Your task to perform on an android device: toggle data saver in the chrome app Image 0: 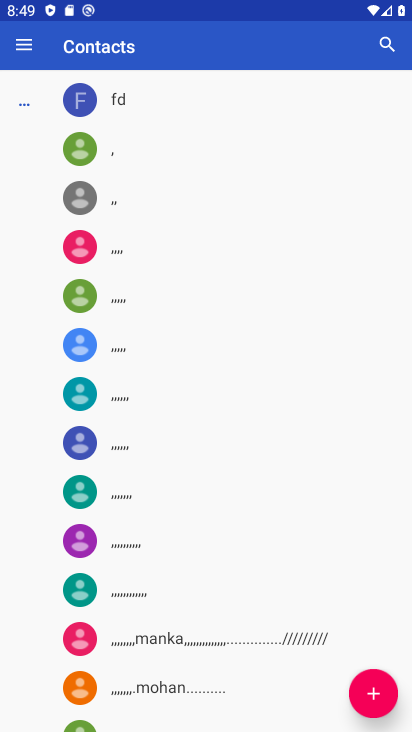
Step 0: press back button
Your task to perform on an android device: toggle data saver in the chrome app Image 1: 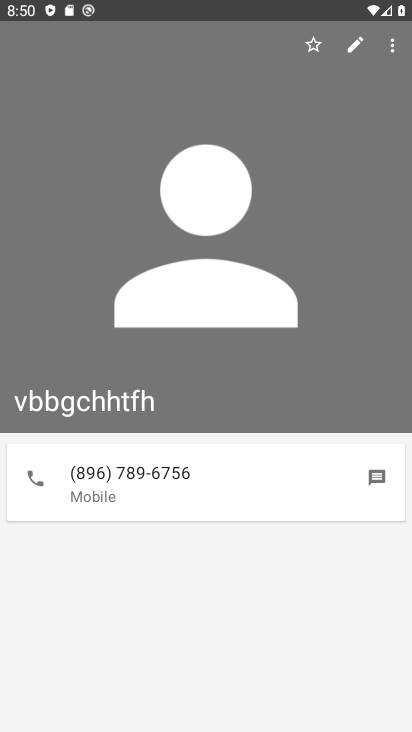
Step 1: press back button
Your task to perform on an android device: toggle data saver in the chrome app Image 2: 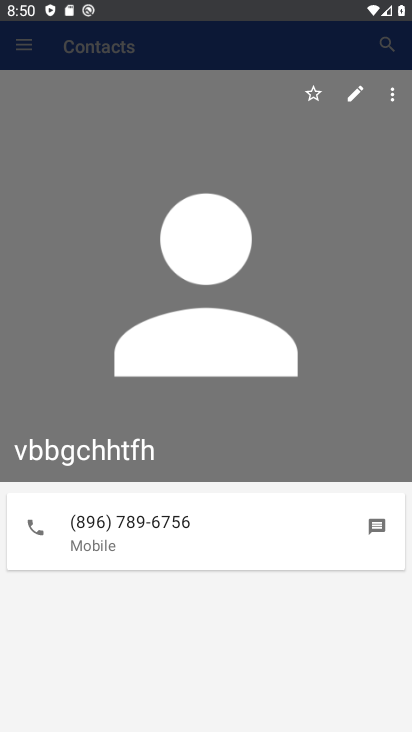
Step 2: press back button
Your task to perform on an android device: toggle data saver in the chrome app Image 3: 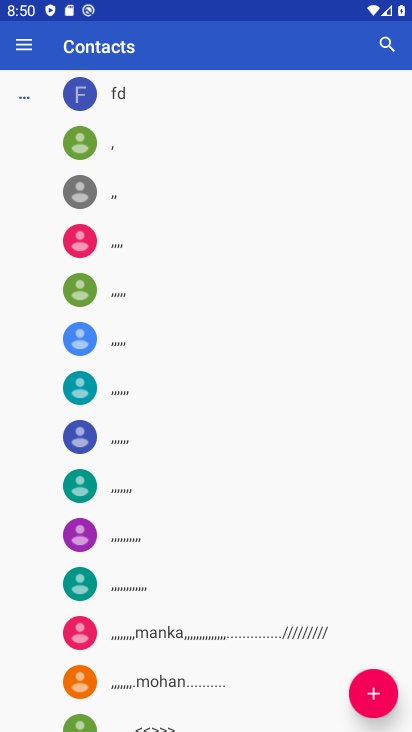
Step 3: press back button
Your task to perform on an android device: toggle data saver in the chrome app Image 4: 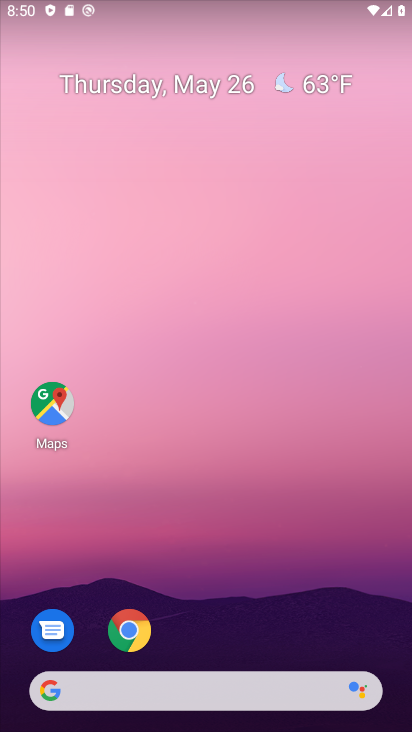
Step 4: click (121, 30)
Your task to perform on an android device: toggle data saver in the chrome app Image 5: 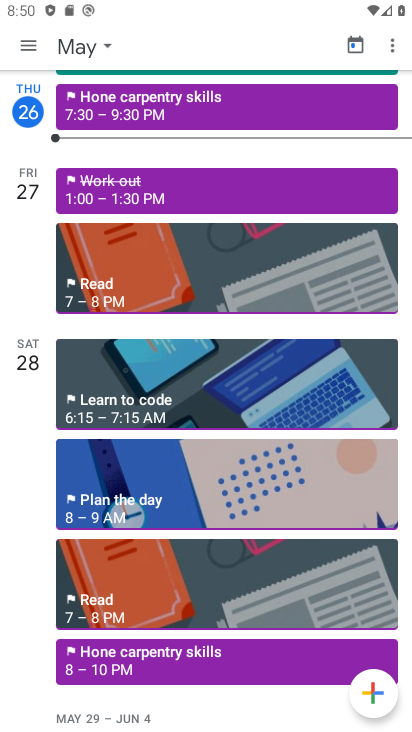
Step 5: press home button
Your task to perform on an android device: toggle data saver in the chrome app Image 6: 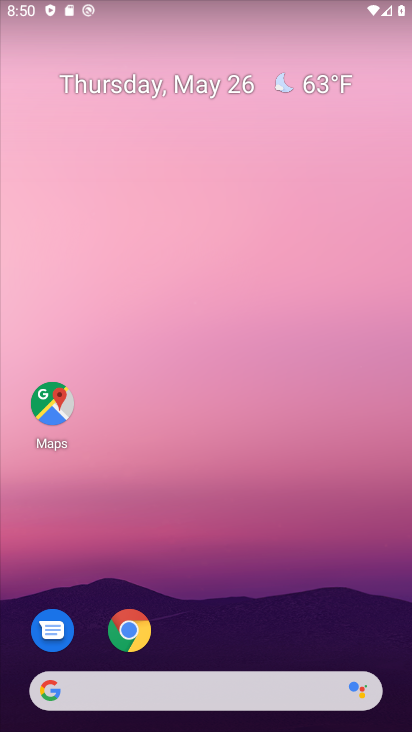
Step 6: drag from (259, 575) to (147, 115)
Your task to perform on an android device: toggle data saver in the chrome app Image 7: 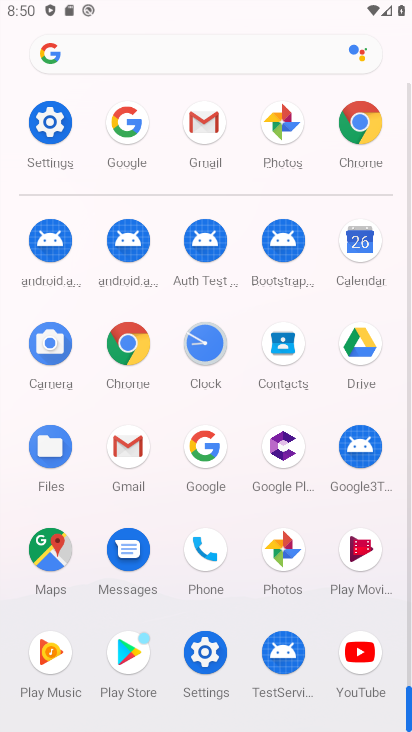
Step 7: click (358, 128)
Your task to perform on an android device: toggle data saver in the chrome app Image 8: 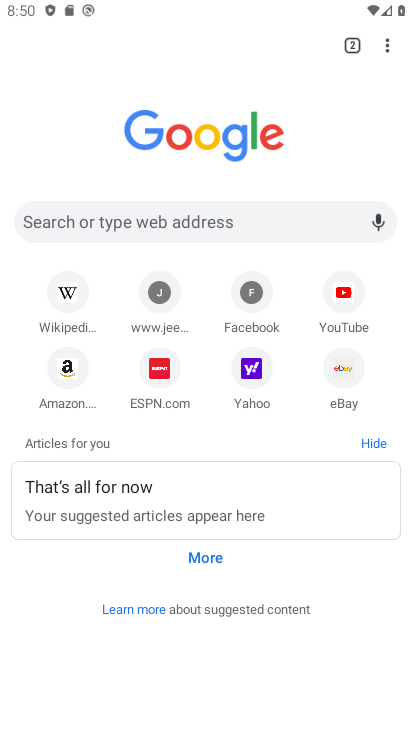
Step 8: drag from (391, 43) to (229, 383)
Your task to perform on an android device: toggle data saver in the chrome app Image 9: 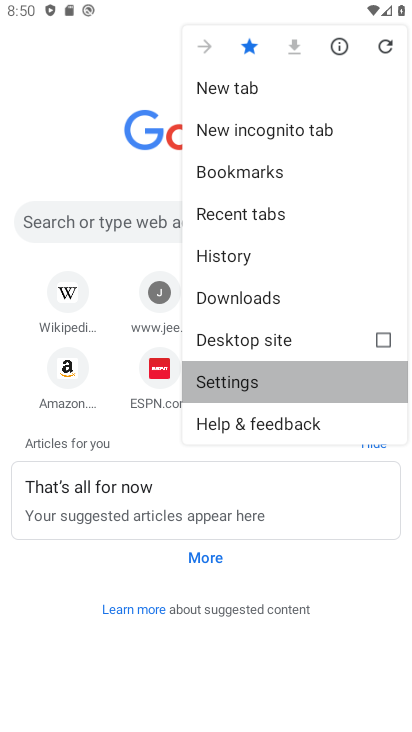
Step 9: click (228, 383)
Your task to perform on an android device: toggle data saver in the chrome app Image 10: 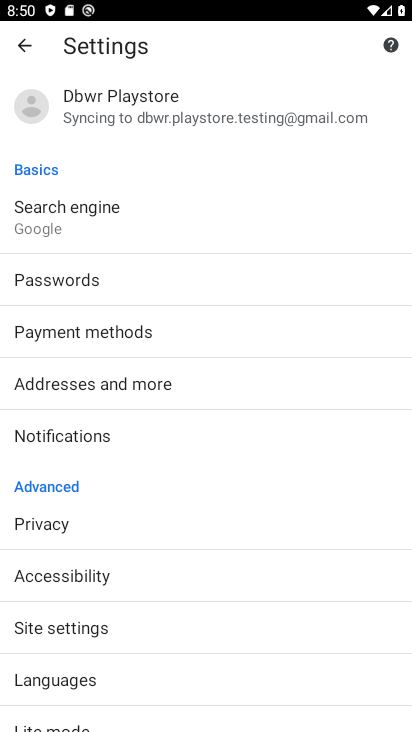
Step 10: drag from (147, 638) to (95, 113)
Your task to perform on an android device: toggle data saver in the chrome app Image 11: 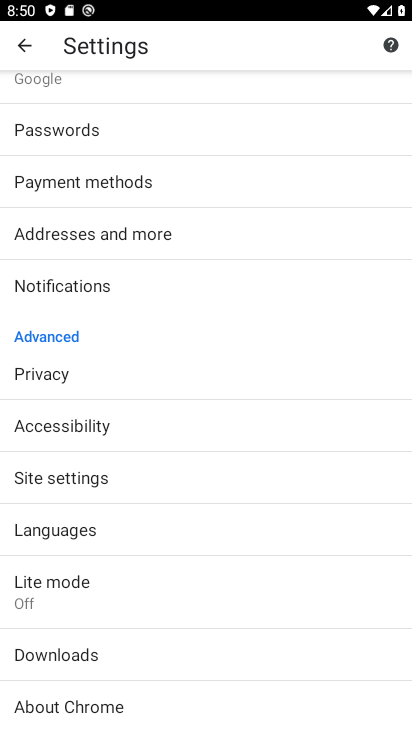
Step 11: click (47, 579)
Your task to perform on an android device: toggle data saver in the chrome app Image 12: 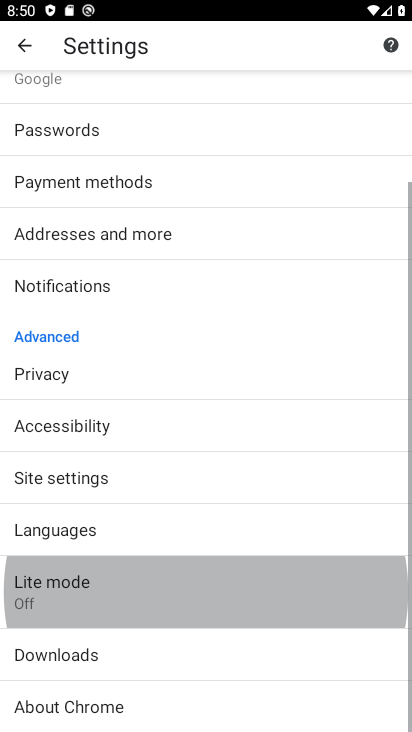
Step 12: click (47, 578)
Your task to perform on an android device: toggle data saver in the chrome app Image 13: 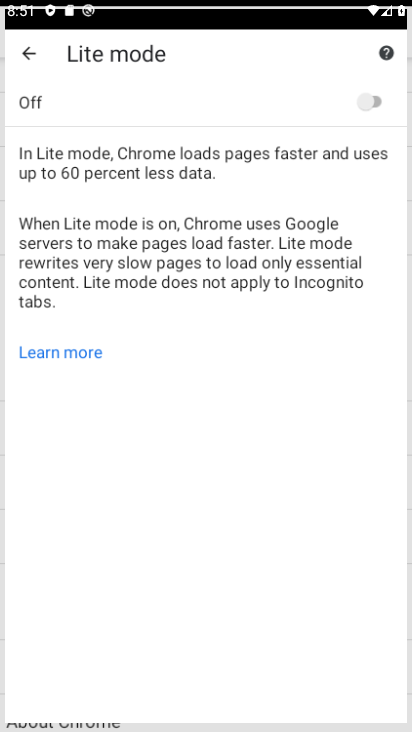
Step 13: click (51, 581)
Your task to perform on an android device: toggle data saver in the chrome app Image 14: 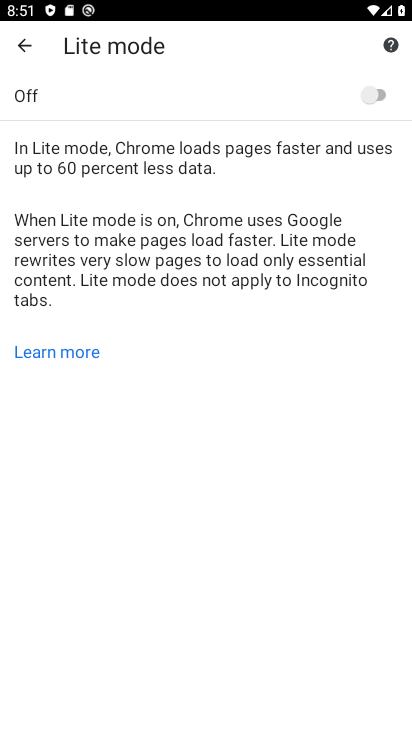
Step 14: click (372, 104)
Your task to perform on an android device: toggle data saver in the chrome app Image 15: 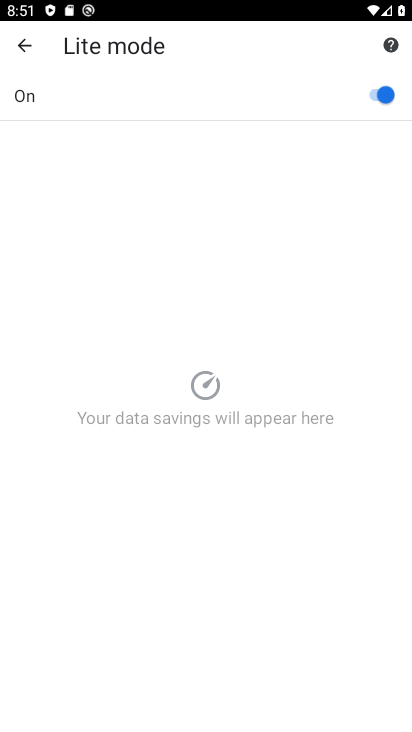
Step 15: task complete